Your task to perform on an android device: check out phone information Image 0: 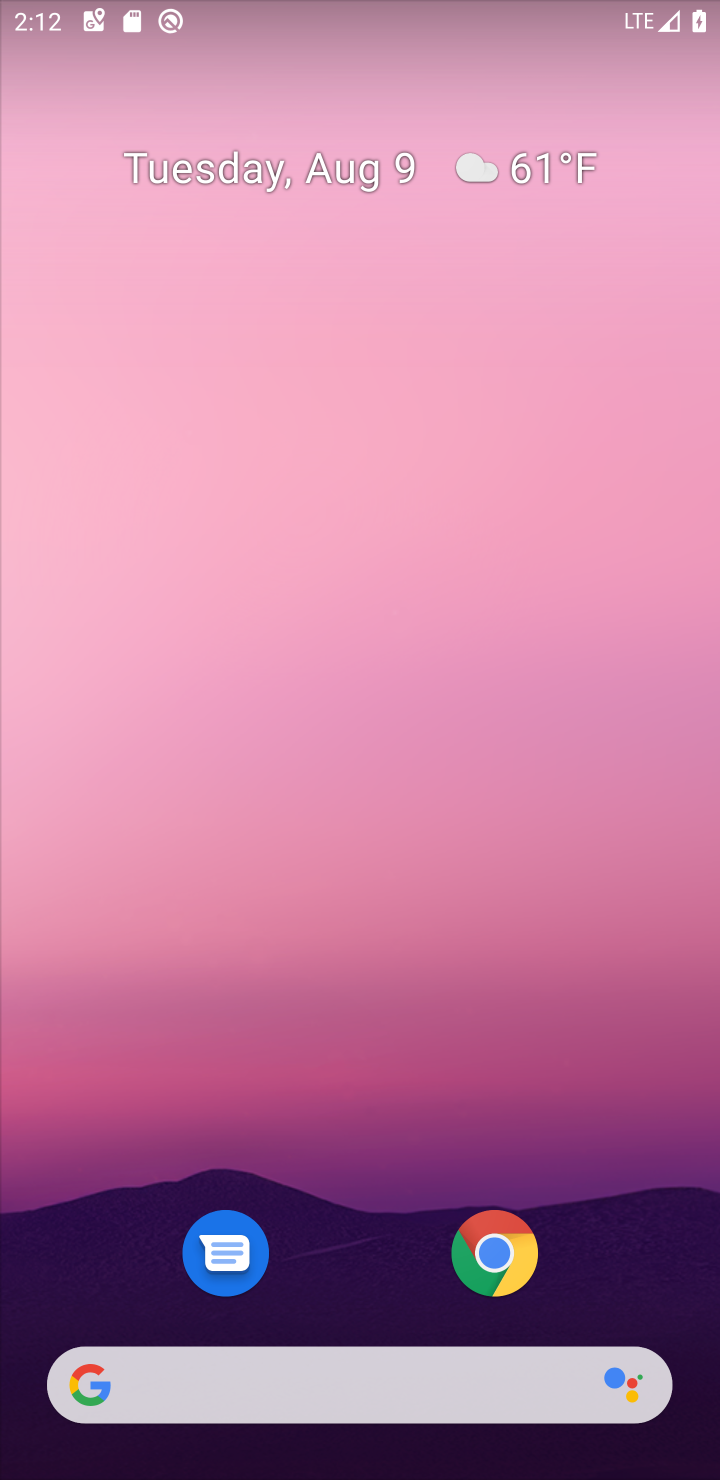
Step 0: drag from (671, 1261) to (368, 29)
Your task to perform on an android device: check out phone information Image 1: 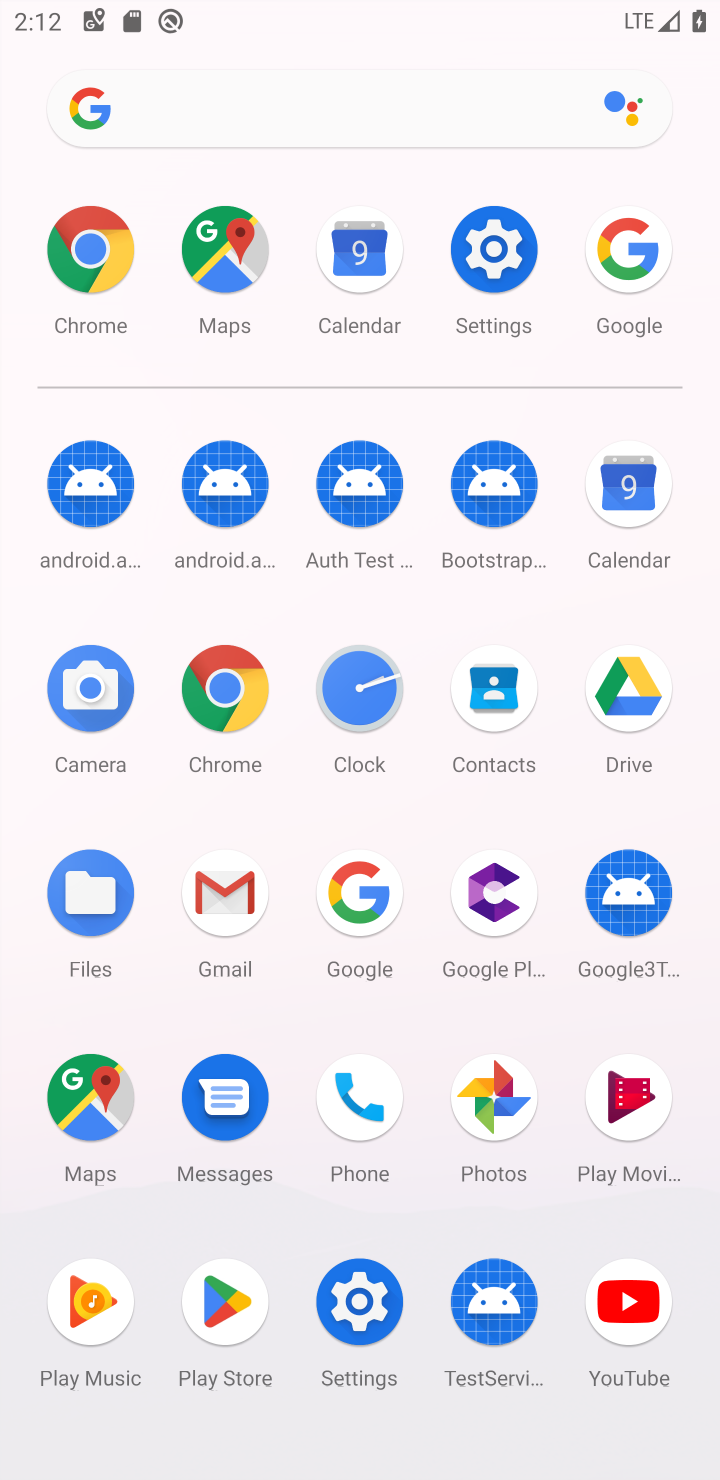
Step 1: click (344, 1282)
Your task to perform on an android device: check out phone information Image 2: 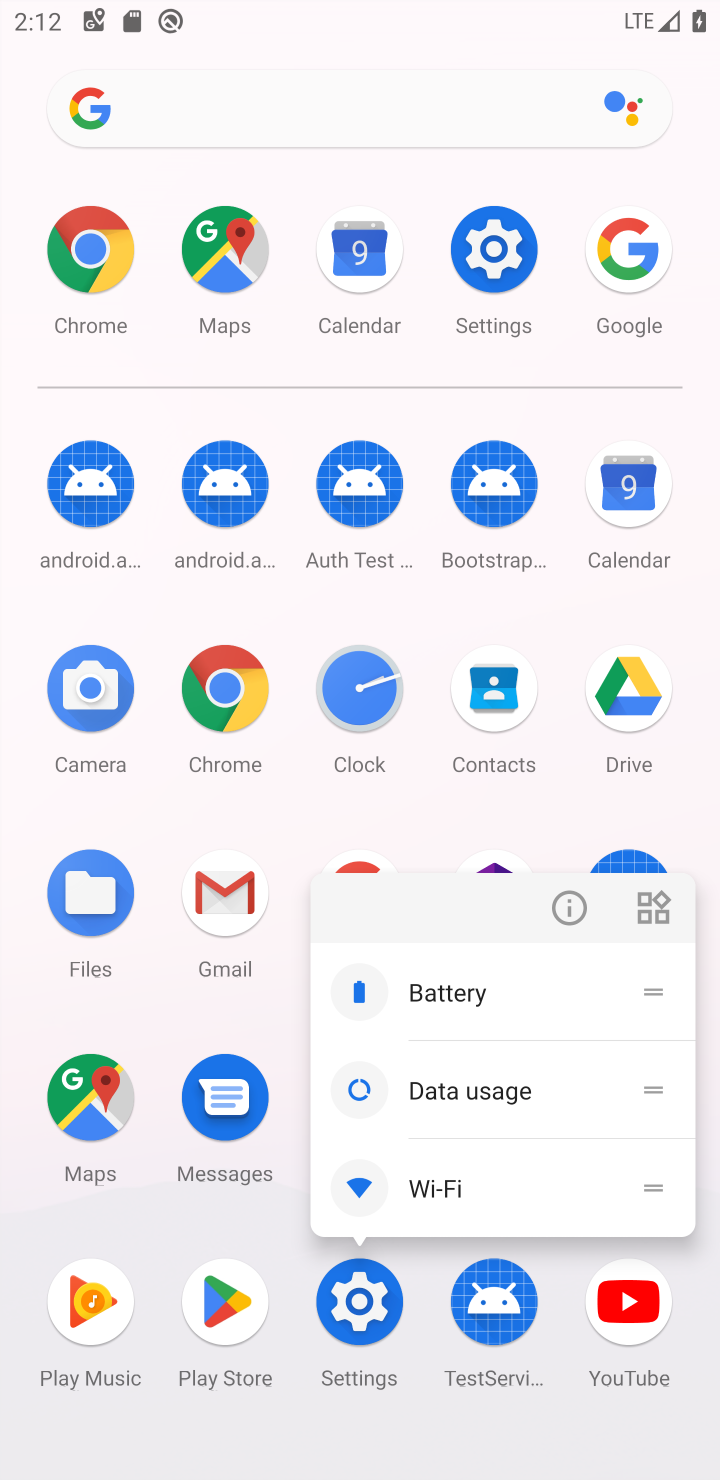
Step 2: click (344, 1282)
Your task to perform on an android device: check out phone information Image 3: 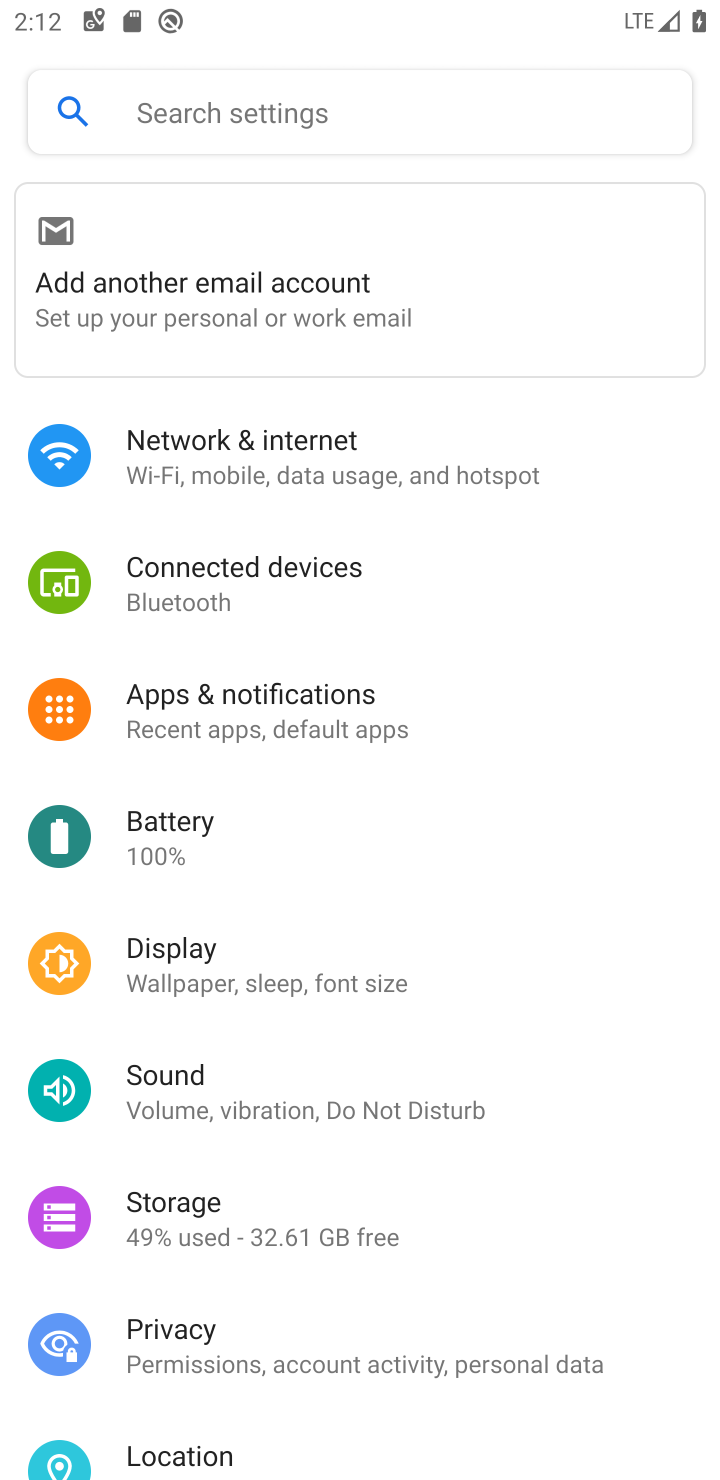
Step 3: drag from (361, 1278) to (356, 17)
Your task to perform on an android device: check out phone information Image 4: 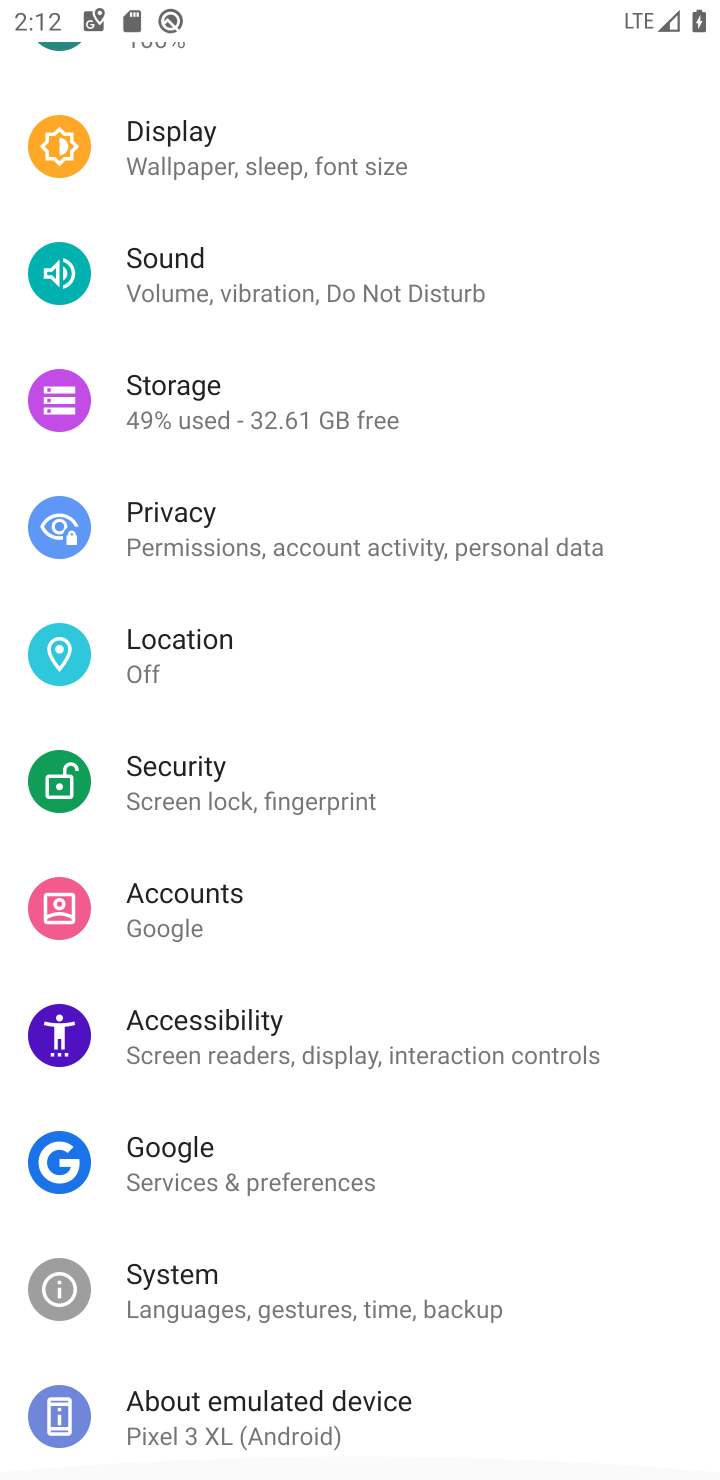
Step 4: click (235, 1400)
Your task to perform on an android device: check out phone information Image 5: 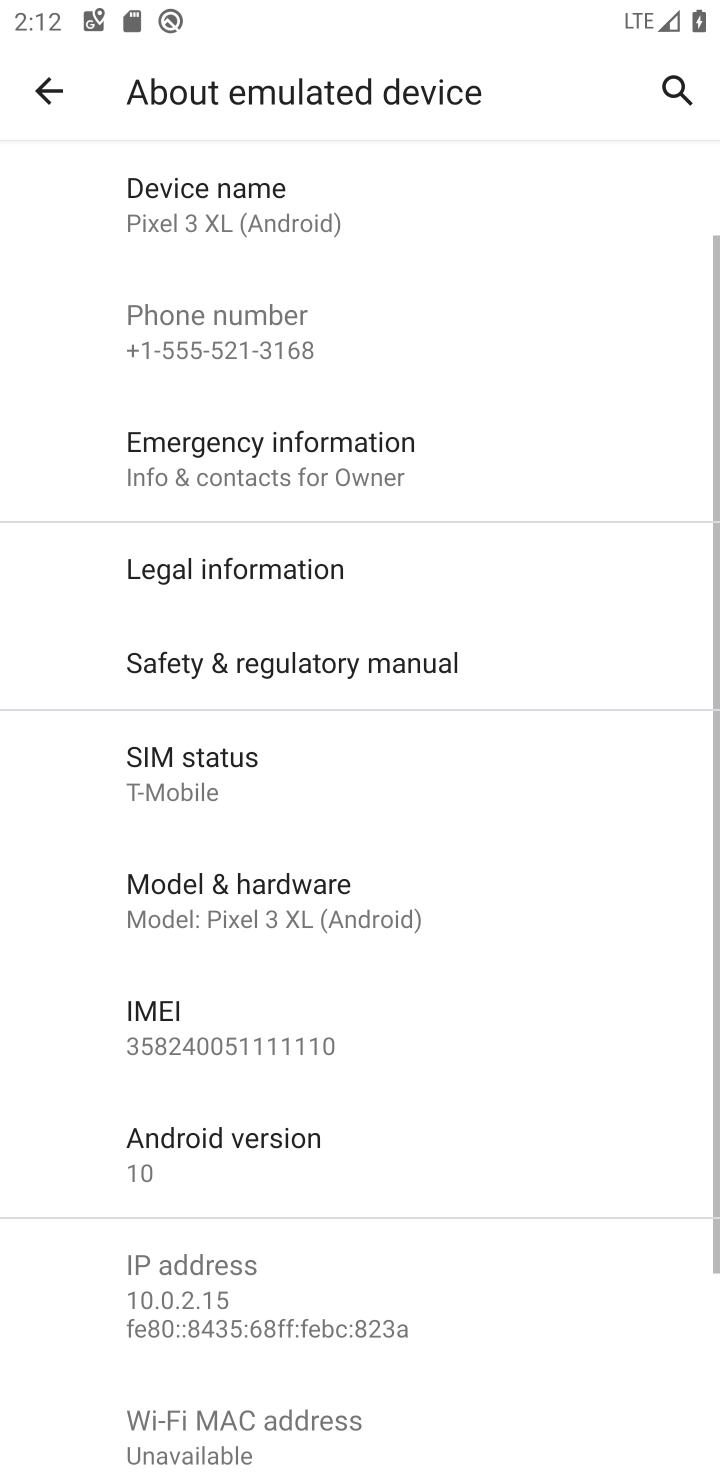
Step 5: task complete